Your task to perform on an android device: change the clock display to show seconds Image 0: 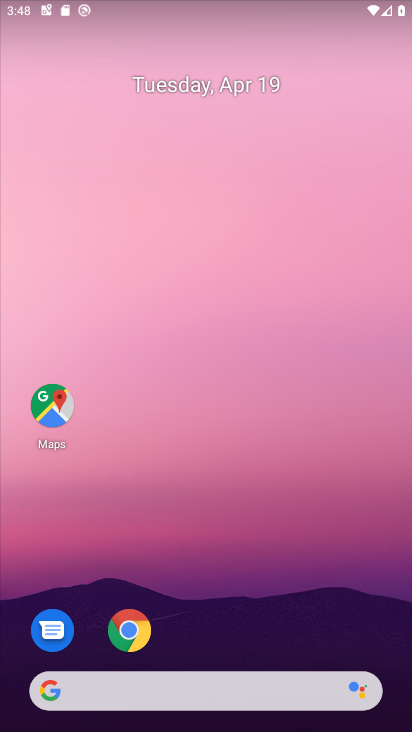
Step 0: drag from (283, 309) to (306, 168)
Your task to perform on an android device: change the clock display to show seconds Image 1: 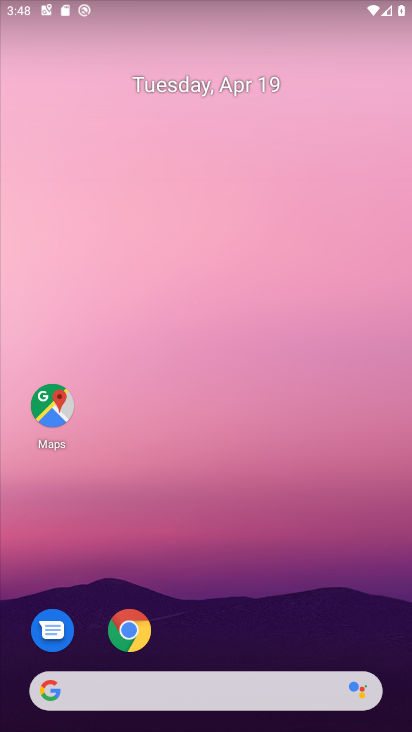
Step 1: drag from (223, 562) to (250, 217)
Your task to perform on an android device: change the clock display to show seconds Image 2: 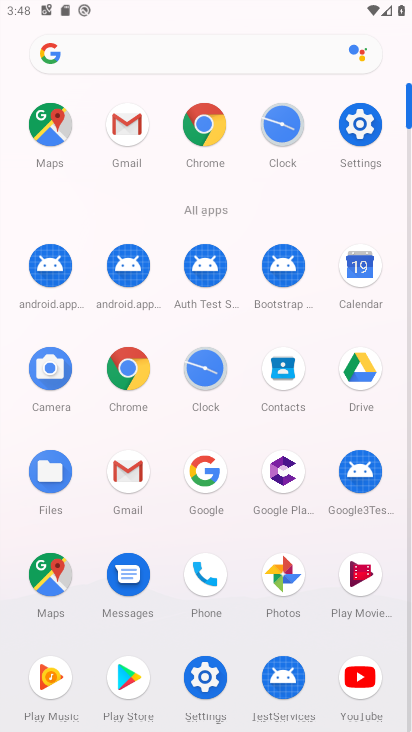
Step 2: click (194, 371)
Your task to perform on an android device: change the clock display to show seconds Image 3: 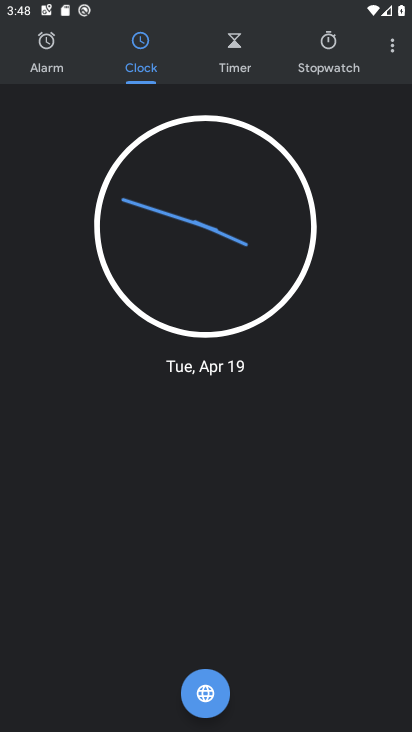
Step 3: click (399, 51)
Your task to perform on an android device: change the clock display to show seconds Image 4: 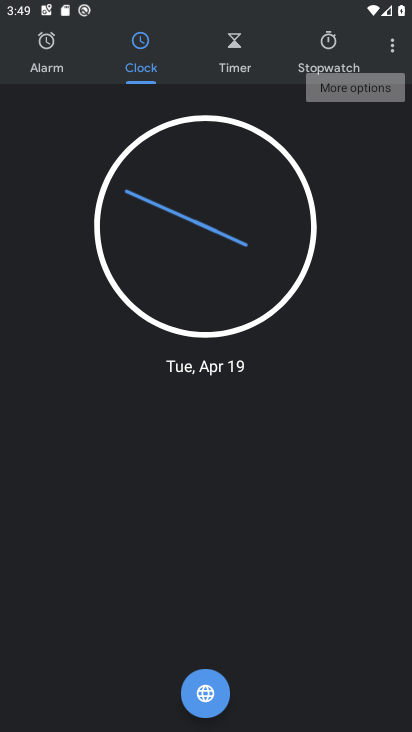
Step 4: click (397, 52)
Your task to perform on an android device: change the clock display to show seconds Image 5: 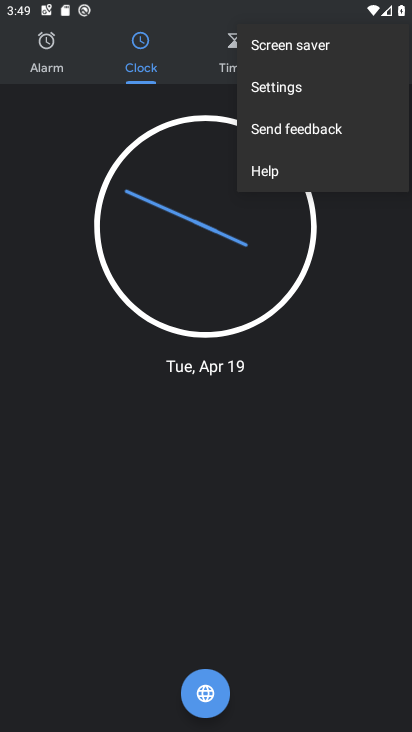
Step 5: click (321, 86)
Your task to perform on an android device: change the clock display to show seconds Image 6: 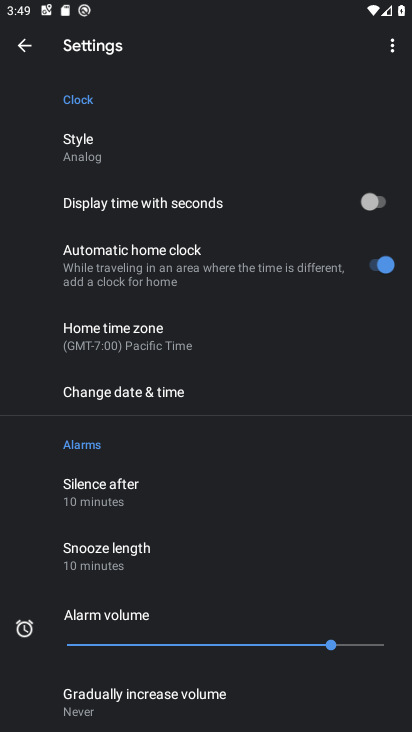
Step 6: click (373, 210)
Your task to perform on an android device: change the clock display to show seconds Image 7: 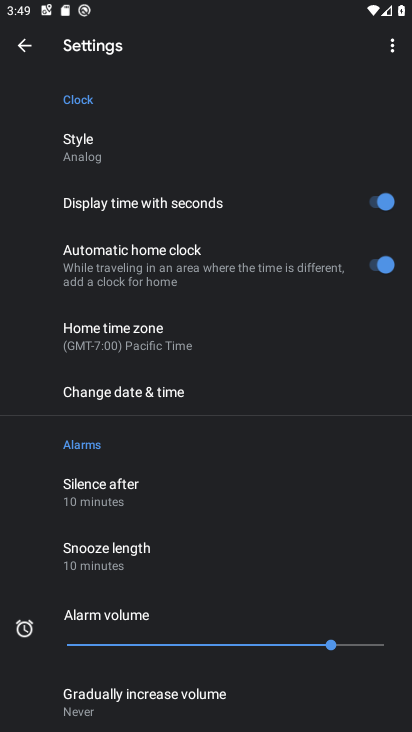
Step 7: task complete